Your task to perform on an android device: check battery use Image 0: 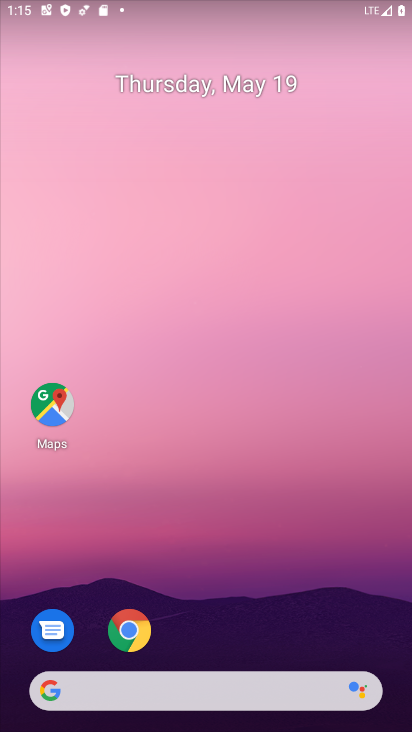
Step 0: drag from (219, 675) to (216, 84)
Your task to perform on an android device: check battery use Image 1: 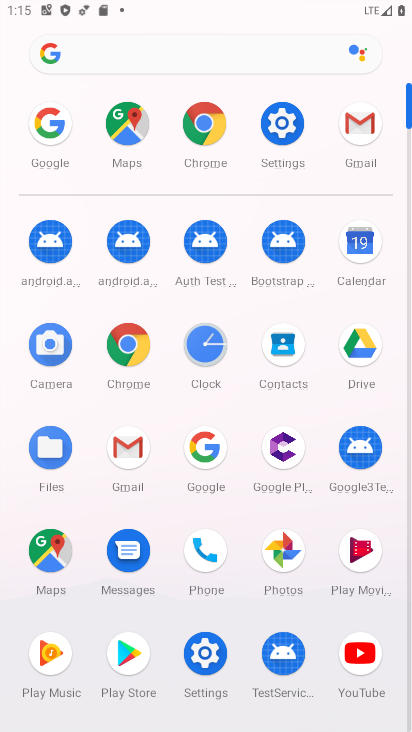
Step 1: click (269, 131)
Your task to perform on an android device: check battery use Image 2: 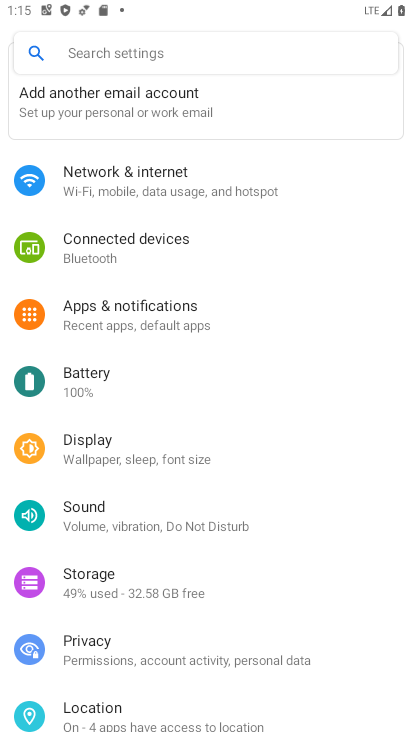
Step 2: click (103, 377)
Your task to perform on an android device: check battery use Image 3: 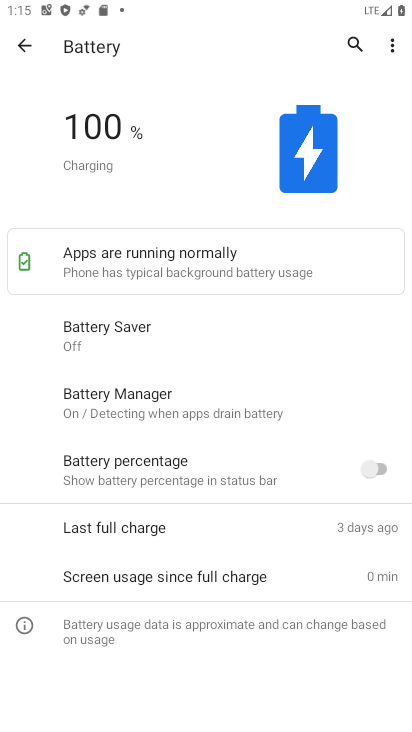
Step 3: click (391, 39)
Your task to perform on an android device: check battery use Image 4: 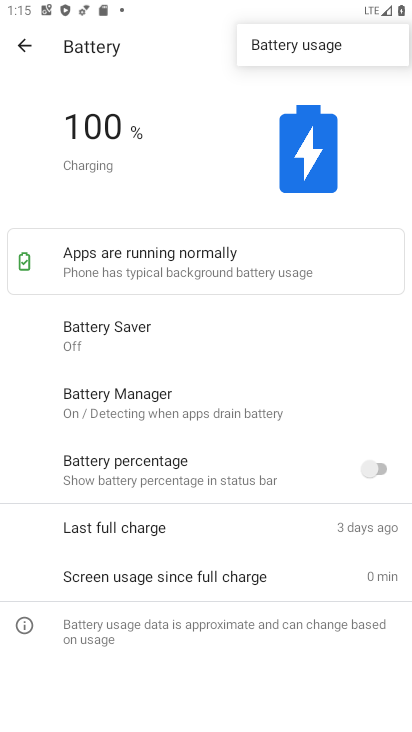
Step 4: click (272, 39)
Your task to perform on an android device: check battery use Image 5: 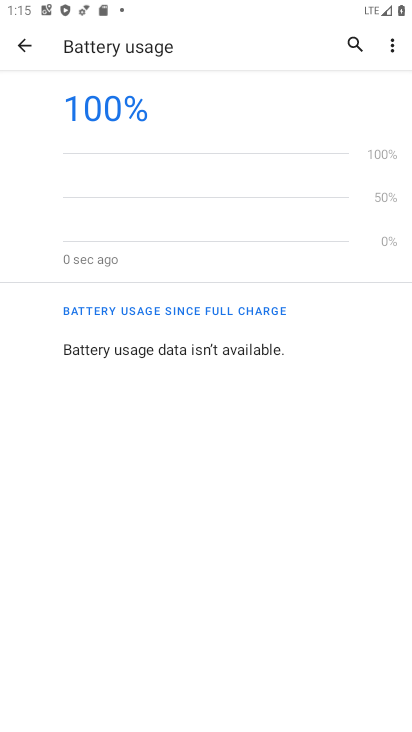
Step 5: task complete